Your task to perform on an android device: change your default location settings in chrome Image 0: 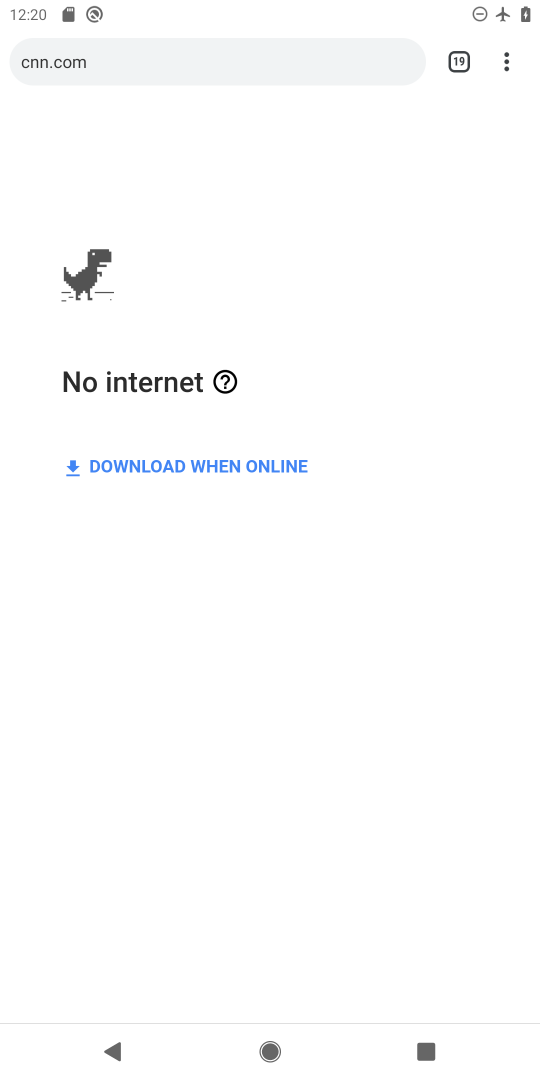
Step 0: press home button
Your task to perform on an android device: change your default location settings in chrome Image 1: 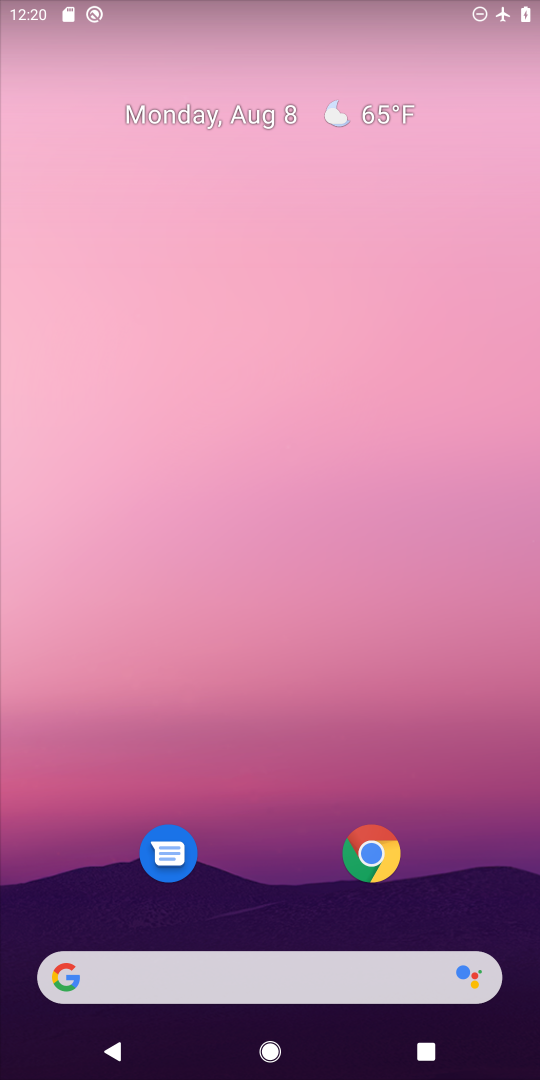
Step 1: drag from (204, 937) to (301, 237)
Your task to perform on an android device: change your default location settings in chrome Image 2: 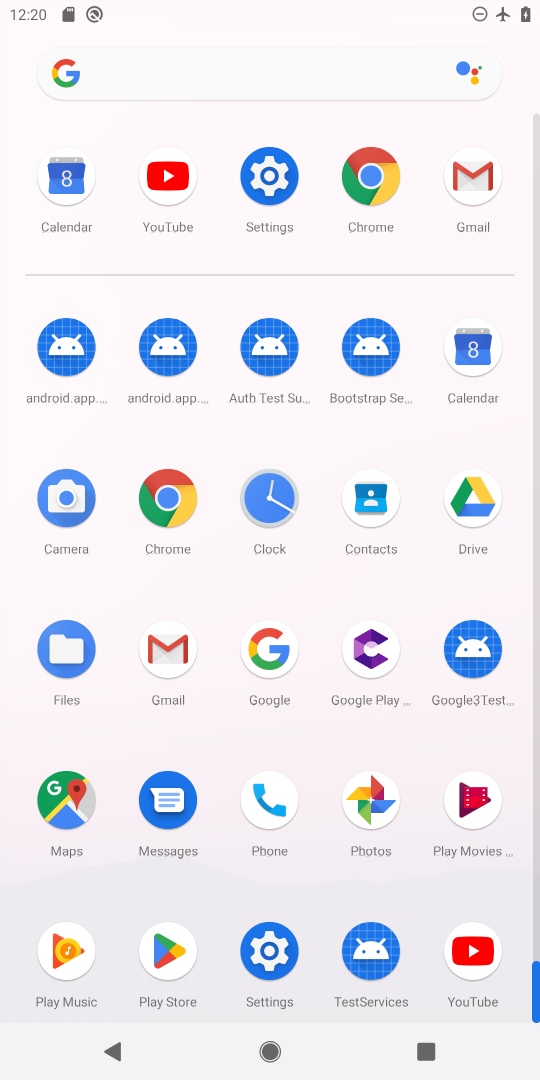
Step 2: click (377, 177)
Your task to perform on an android device: change your default location settings in chrome Image 3: 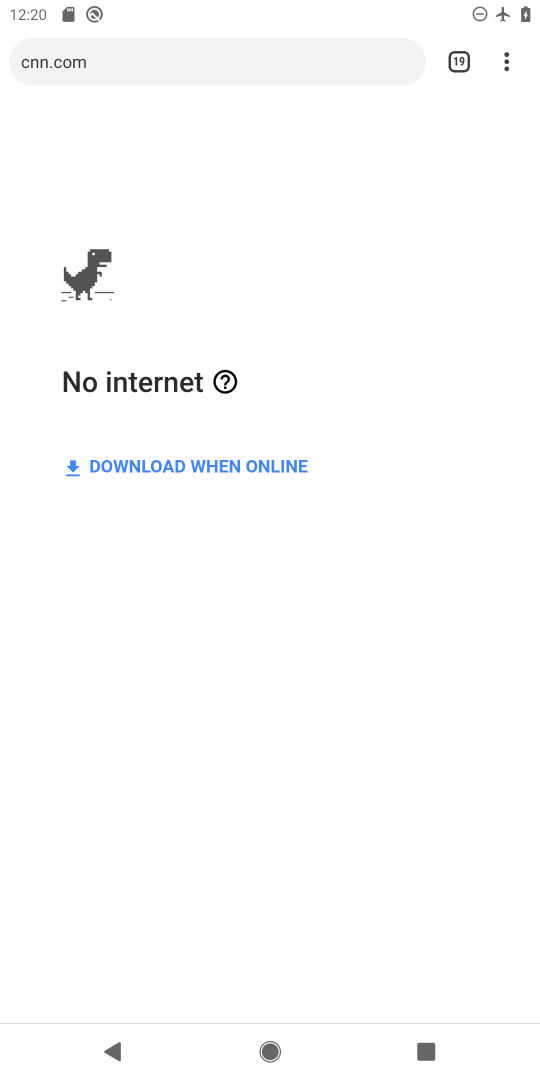
Step 3: click (521, 62)
Your task to perform on an android device: change your default location settings in chrome Image 4: 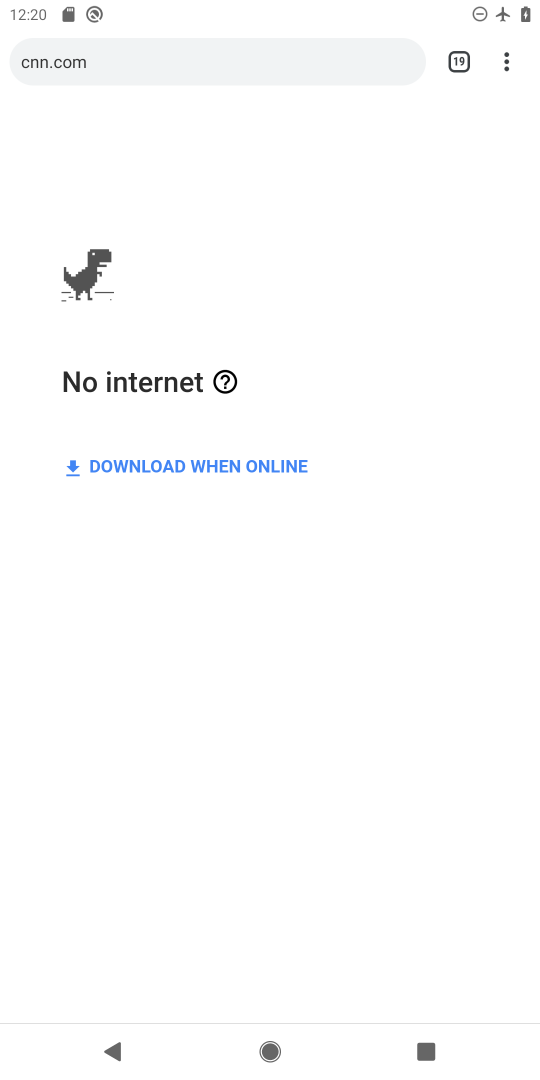
Step 4: click (513, 62)
Your task to perform on an android device: change your default location settings in chrome Image 5: 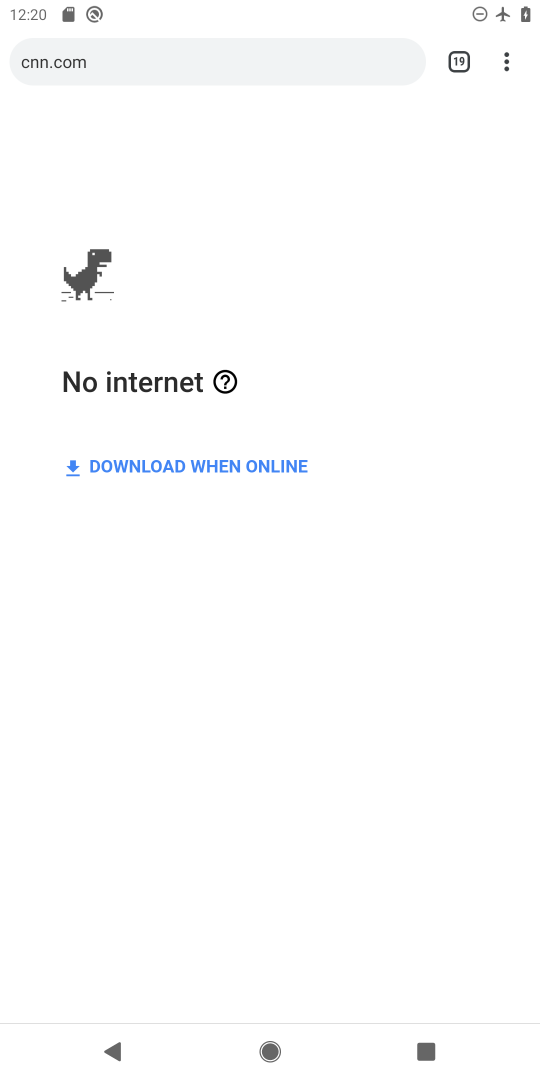
Step 5: click (505, 62)
Your task to perform on an android device: change your default location settings in chrome Image 6: 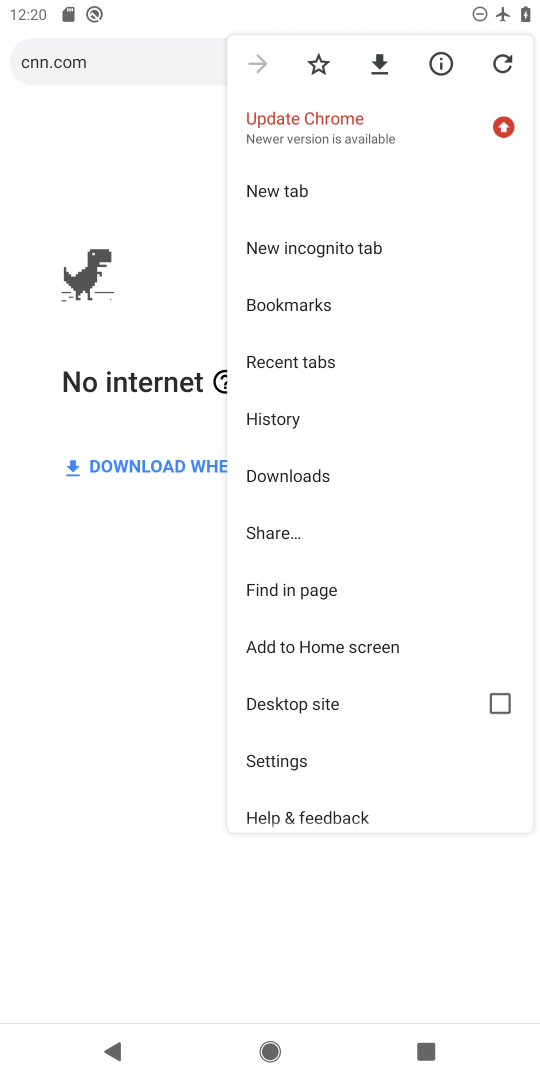
Step 6: click (325, 747)
Your task to perform on an android device: change your default location settings in chrome Image 7: 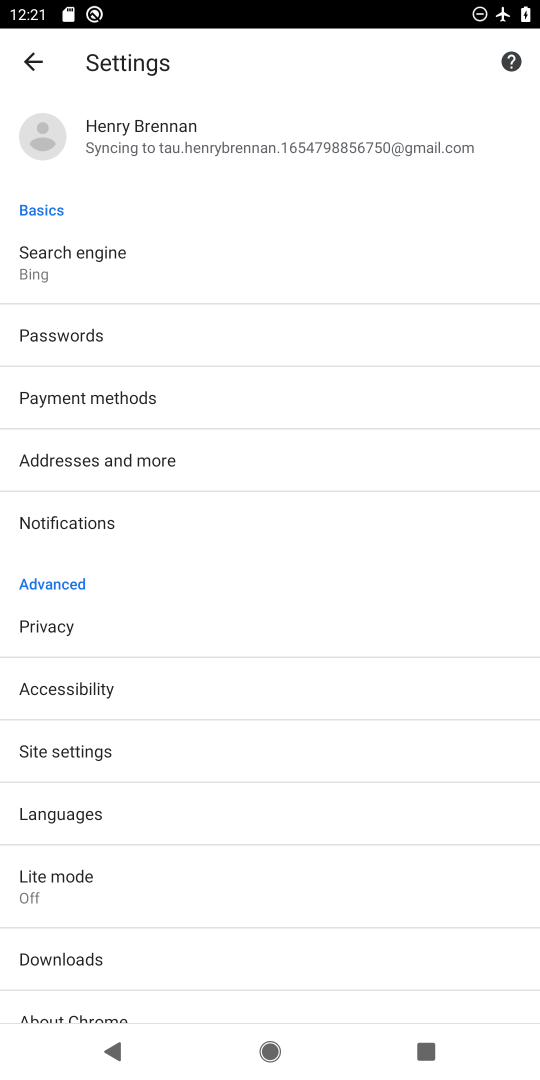
Step 7: click (96, 742)
Your task to perform on an android device: change your default location settings in chrome Image 8: 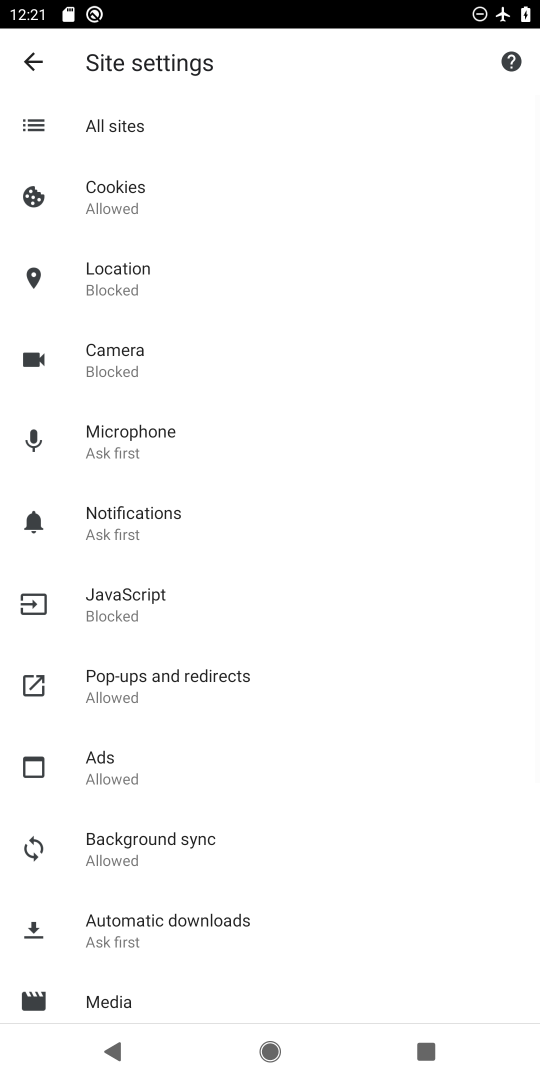
Step 8: click (126, 281)
Your task to perform on an android device: change your default location settings in chrome Image 9: 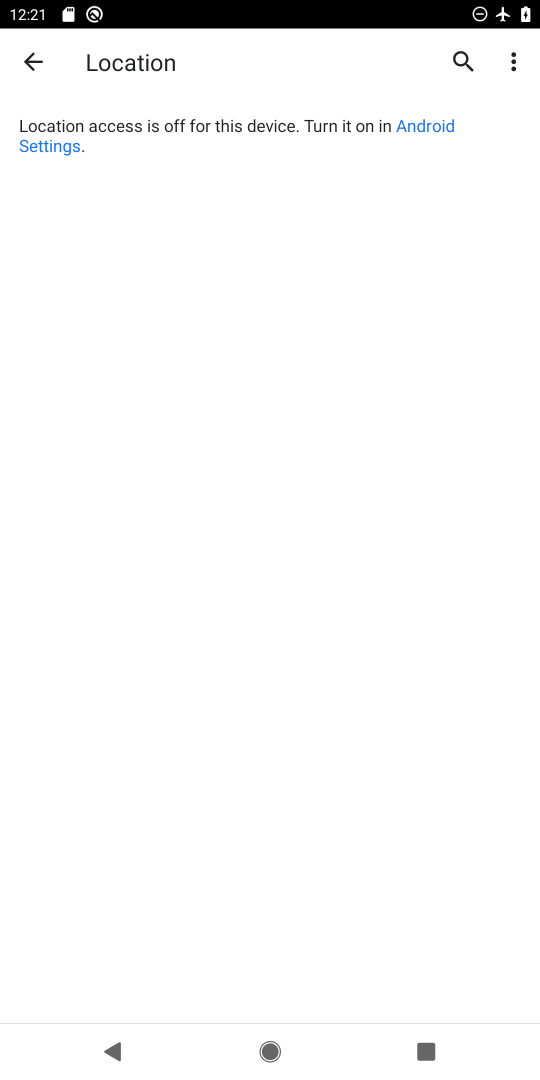
Step 9: task complete